Your task to perform on an android device: Search for usb-a on newegg.com, select the first entry, and add it to the cart. Image 0: 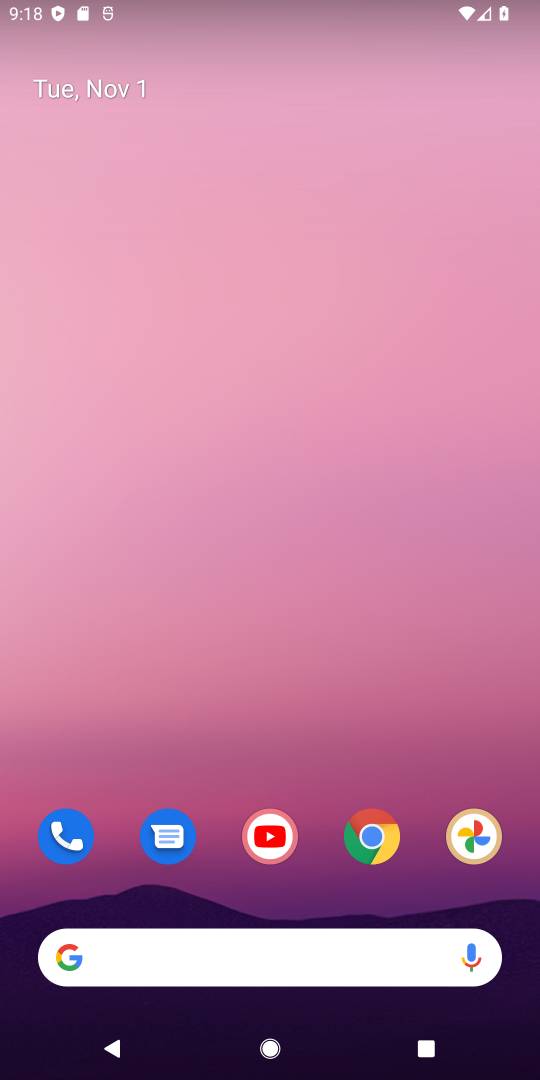
Step 0: click (381, 854)
Your task to perform on an android device: Search for usb-a on newegg.com, select the first entry, and add it to the cart. Image 1: 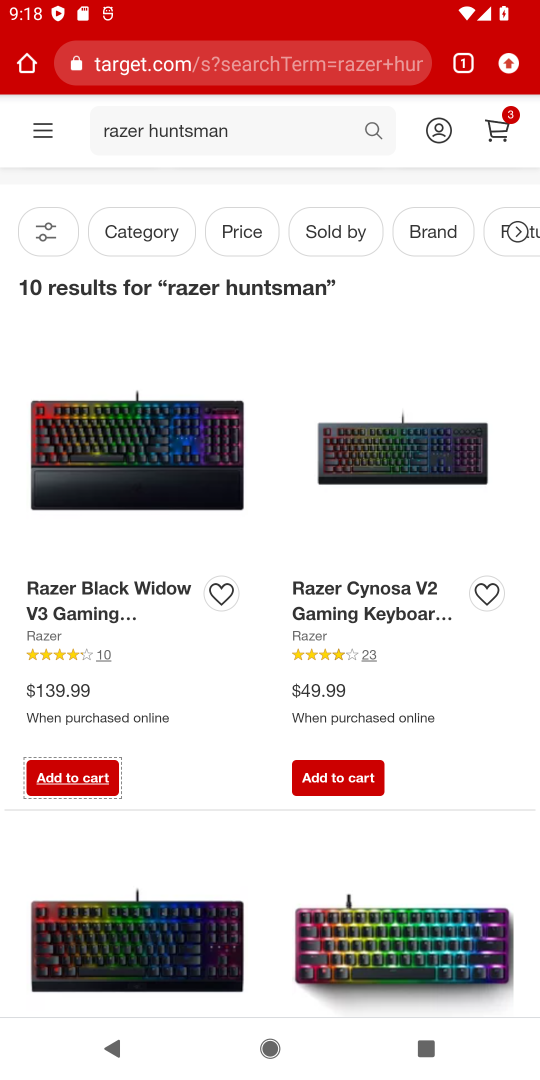
Step 1: click (231, 56)
Your task to perform on an android device: Search for usb-a on newegg.com, select the first entry, and add it to the cart. Image 2: 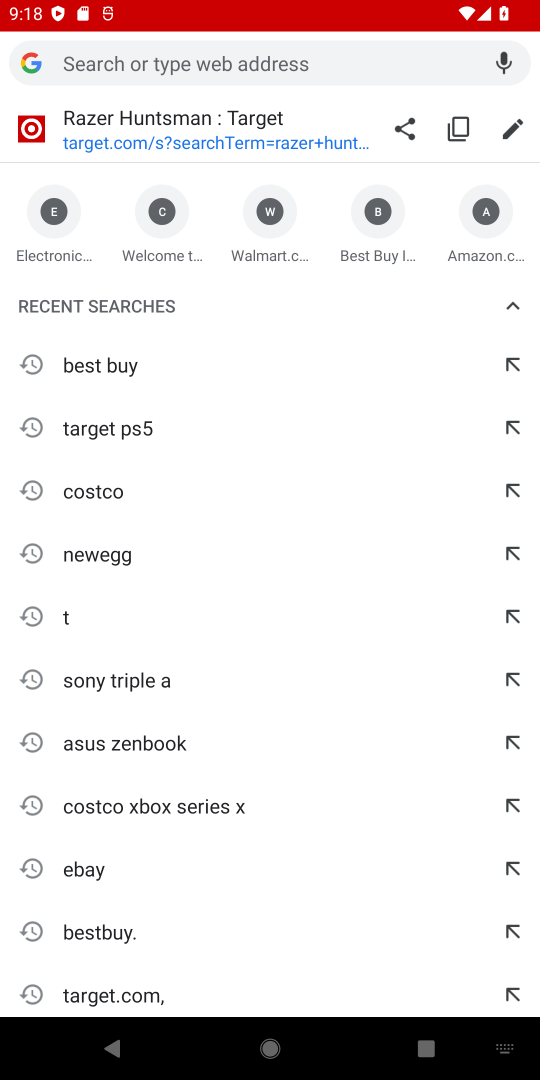
Step 2: click (144, 553)
Your task to perform on an android device: Search for usb-a on newegg.com, select the first entry, and add it to the cart. Image 3: 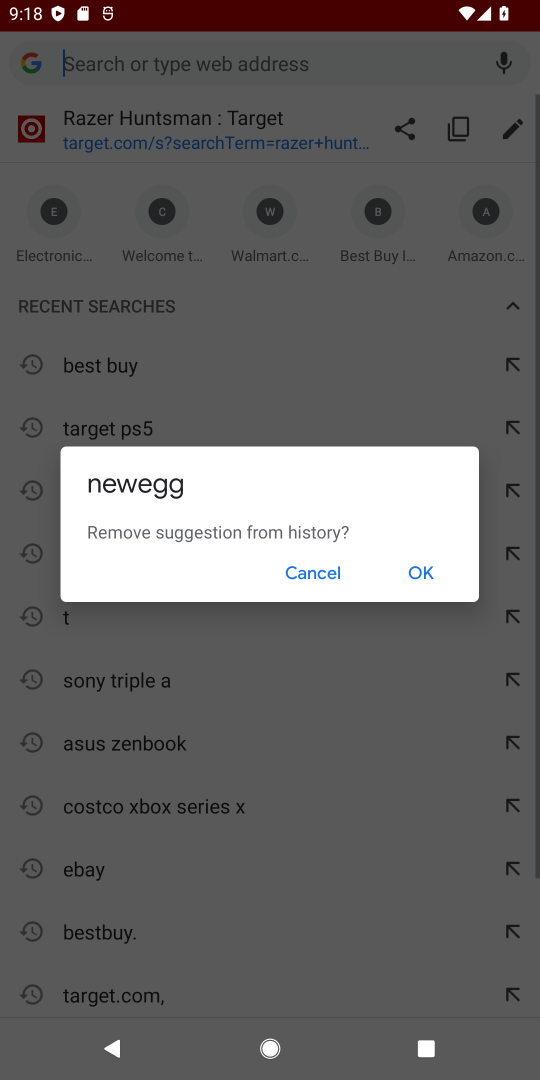
Step 3: click (450, 579)
Your task to perform on an android device: Search for usb-a on newegg.com, select the first entry, and add it to the cart. Image 4: 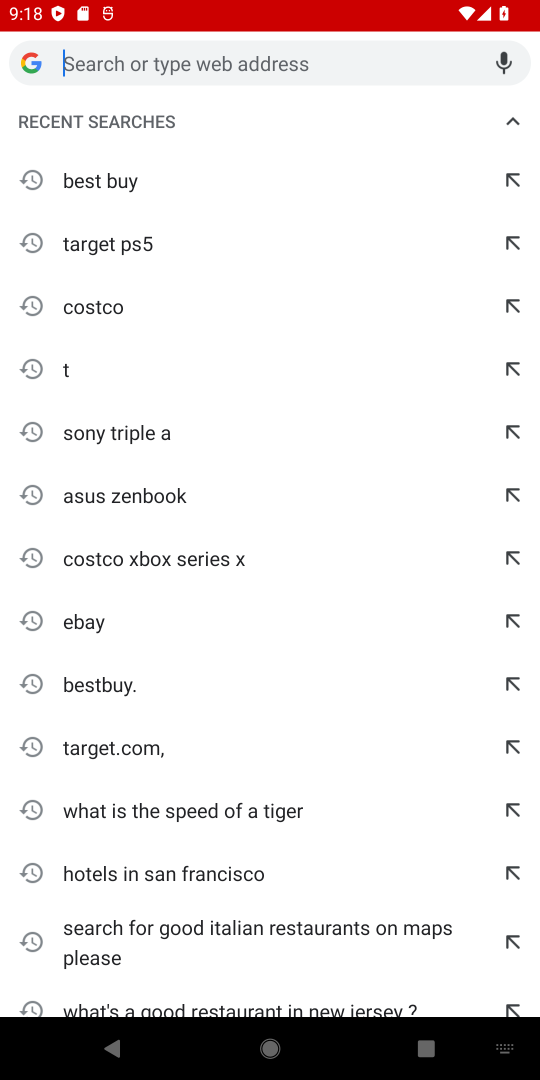
Step 4: type "newegg.com"
Your task to perform on an android device: Search for usb-a on newegg.com, select the first entry, and add it to the cart. Image 5: 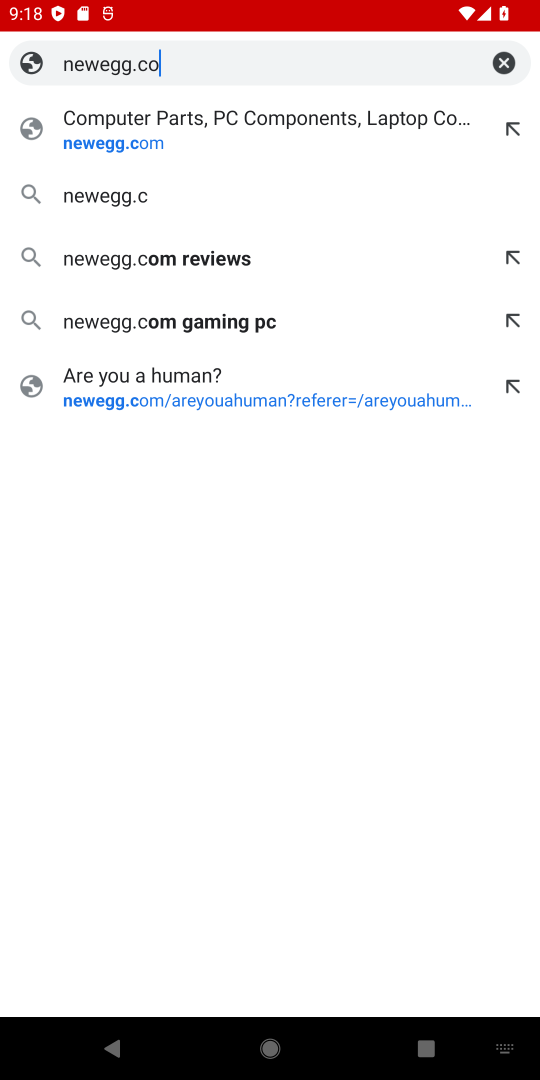
Step 5: type ""
Your task to perform on an android device: Search for usb-a on newegg.com, select the first entry, and add it to the cart. Image 6: 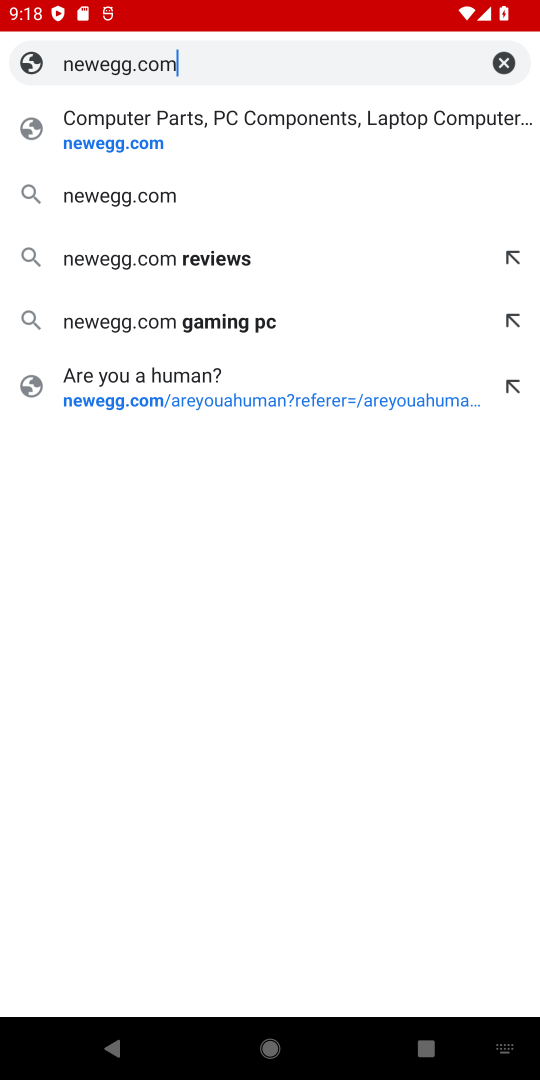
Step 6: click (117, 130)
Your task to perform on an android device: Search for usb-a on newegg.com, select the first entry, and add it to the cart. Image 7: 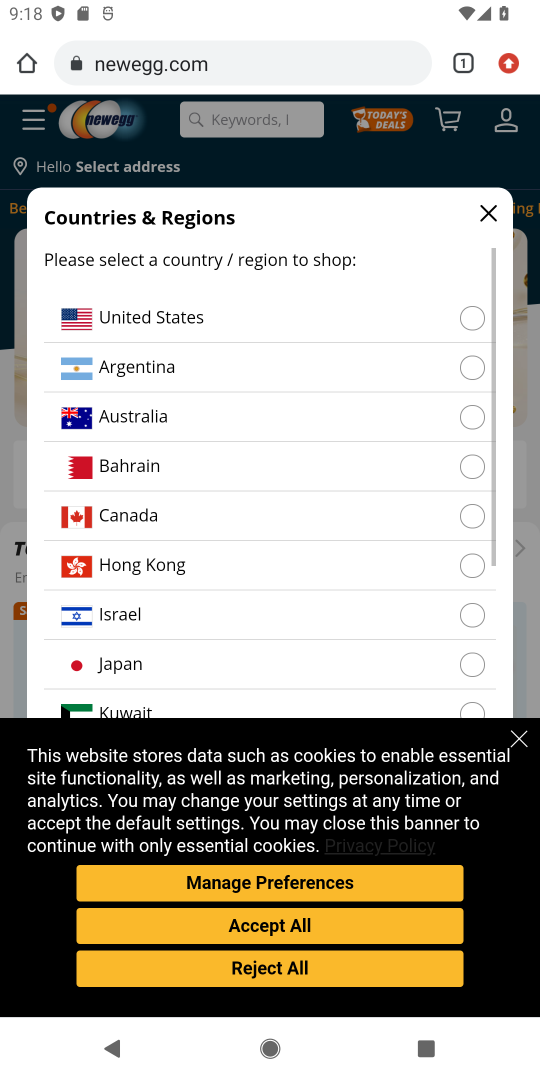
Step 7: click (476, 207)
Your task to perform on an android device: Search for usb-a on newegg.com, select the first entry, and add it to the cart. Image 8: 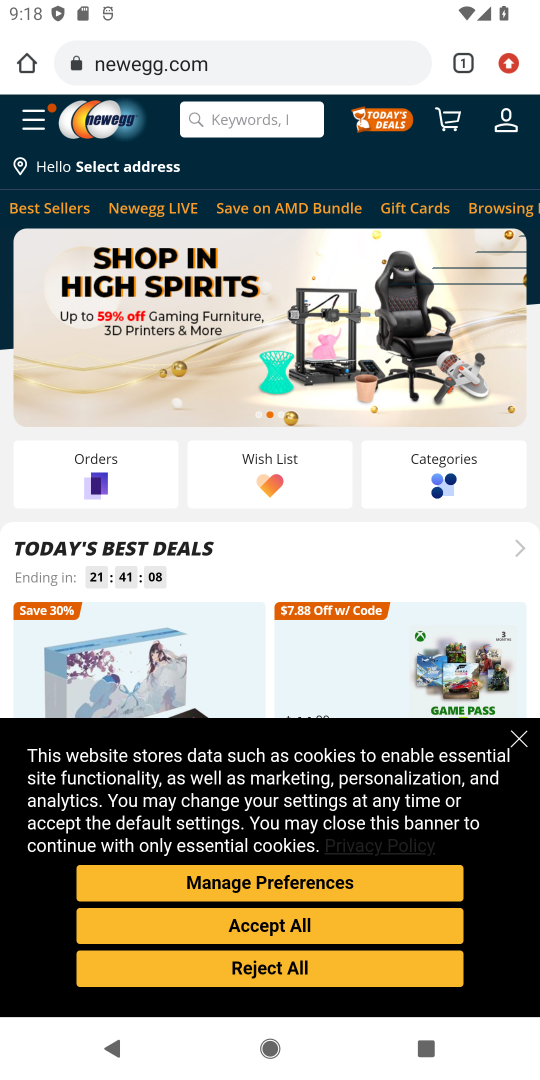
Step 8: click (334, 984)
Your task to perform on an android device: Search for usb-a on newegg.com, select the first entry, and add it to the cart. Image 9: 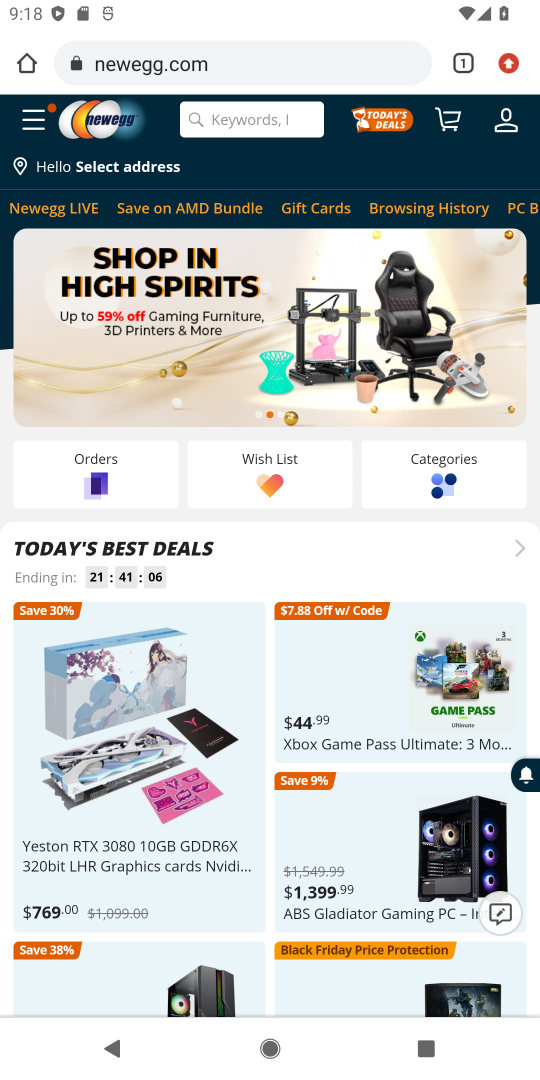
Step 9: click (249, 108)
Your task to perform on an android device: Search for usb-a on newegg.com, select the first entry, and add it to the cart. Image 10: 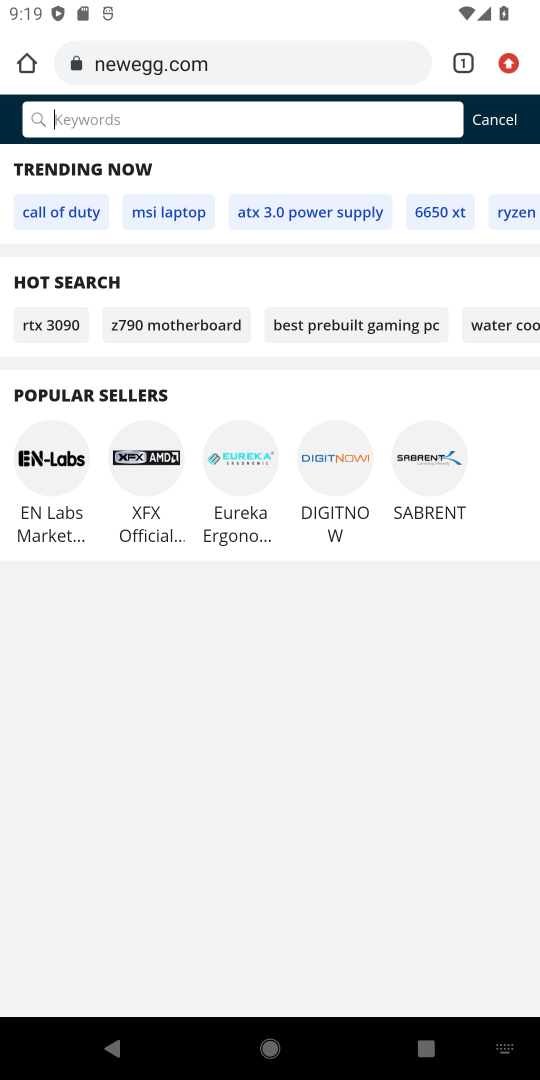
Step 10: type "usb-a"
Your task to perform on an android device: Search for usb-a on newegg.com, select the first entry, and add it to the cart. Image 11: 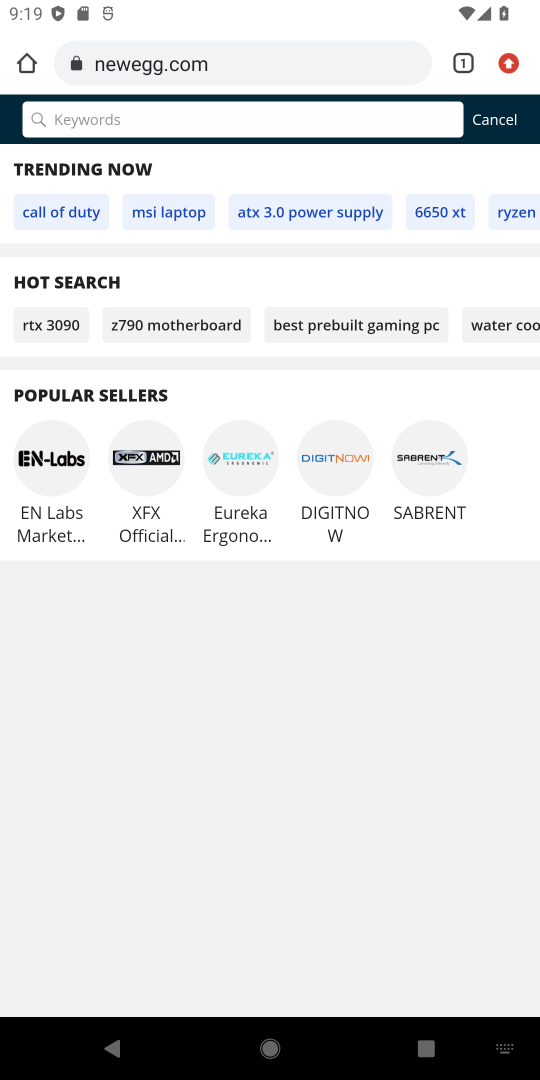
Step 11: type ""
Your task to perform on an android device: Search for usb-a on newegg.com, select the first entry, and add it to the cart. Image 12: 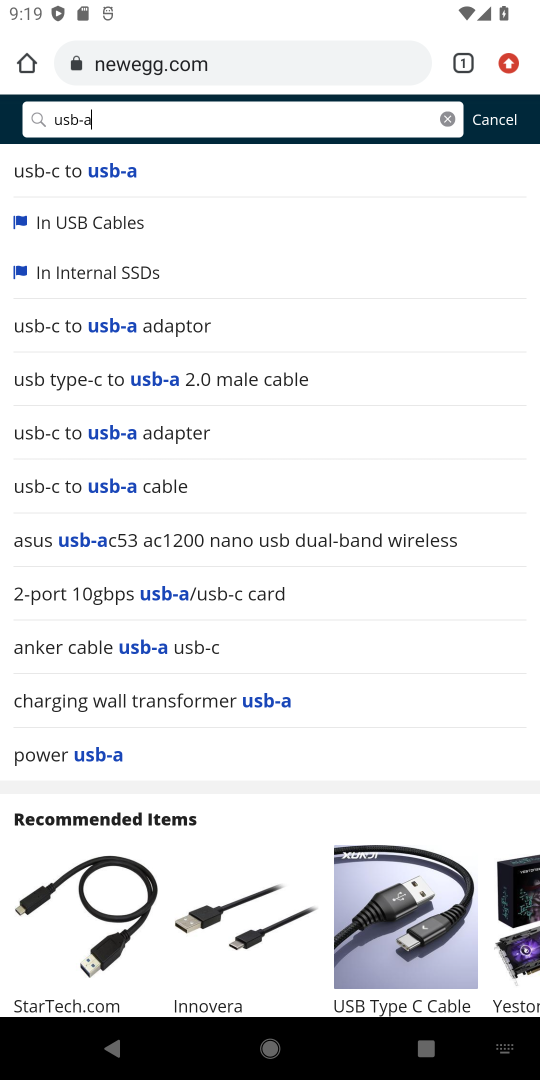
Step 12: click (56, 173)
Your task to perform on an android device: Search for usb-a on newegg.com, select the first entry, and add it to the cart. Image 13: 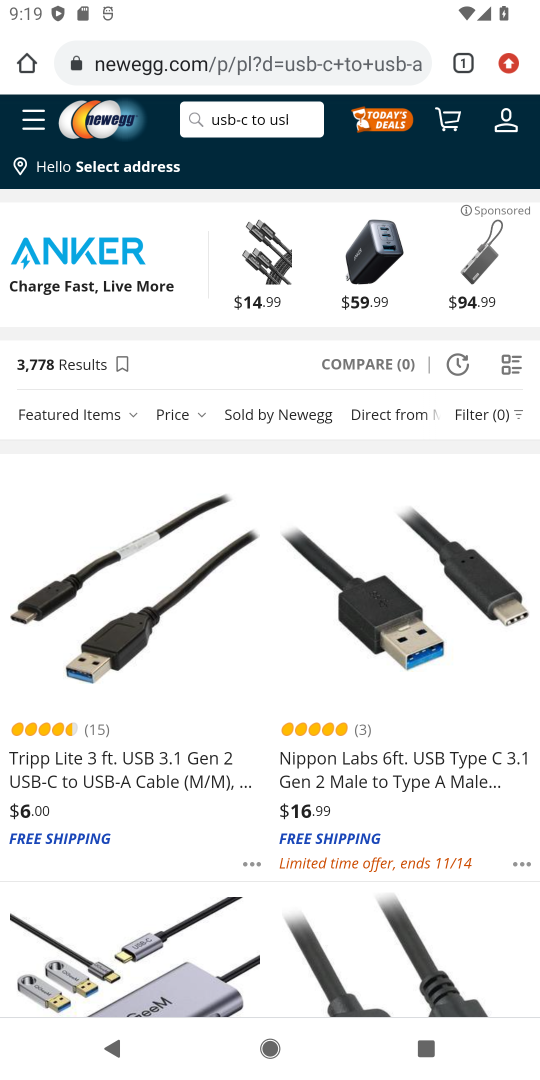
Step 13: click (141, 595)
Your task to perform on an android device: Search for usb-a on newegg.com, select the first entry, and add it to the cart. Image 14: 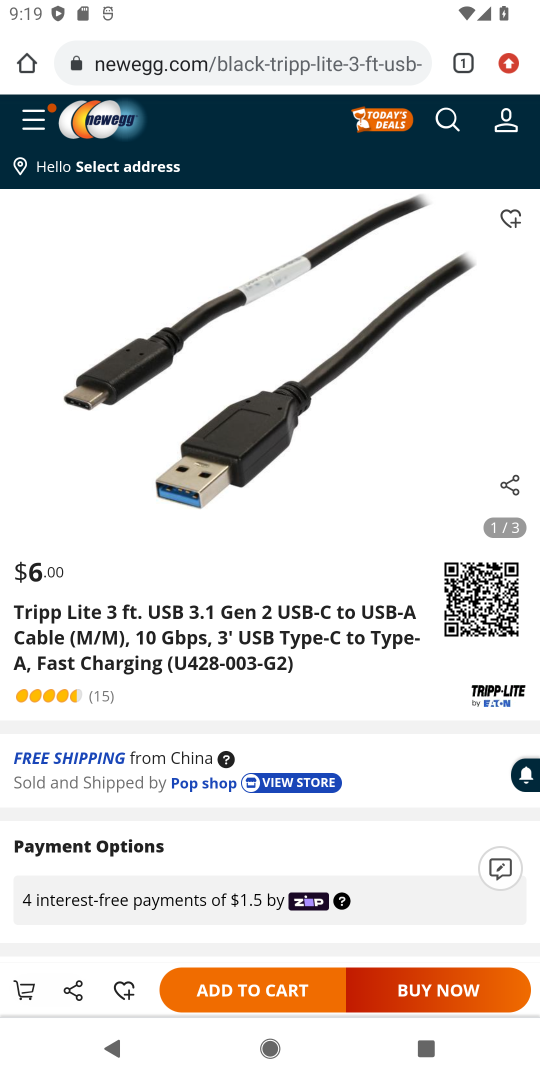
Step 14: click (211, 999)
Your task to perform on an android device: Search for usb-a on newegg.com, select the first entry, and add it to the cart. Image 15: 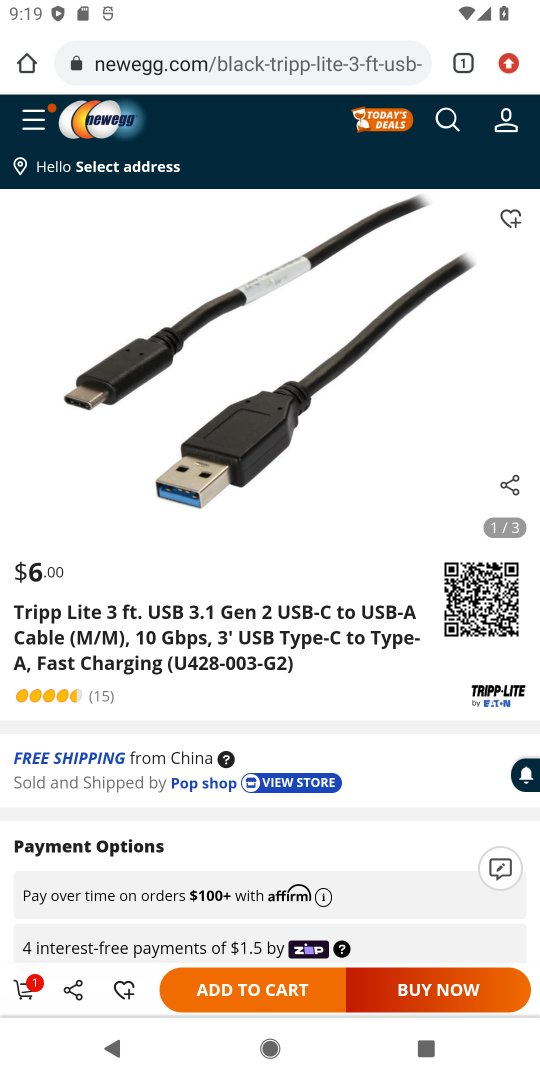
Step 15: click (38, 999)
Your task to perform on an android device: Search for usb-a on newegg.com, select the first entry, and add it to the cart. Image 16: 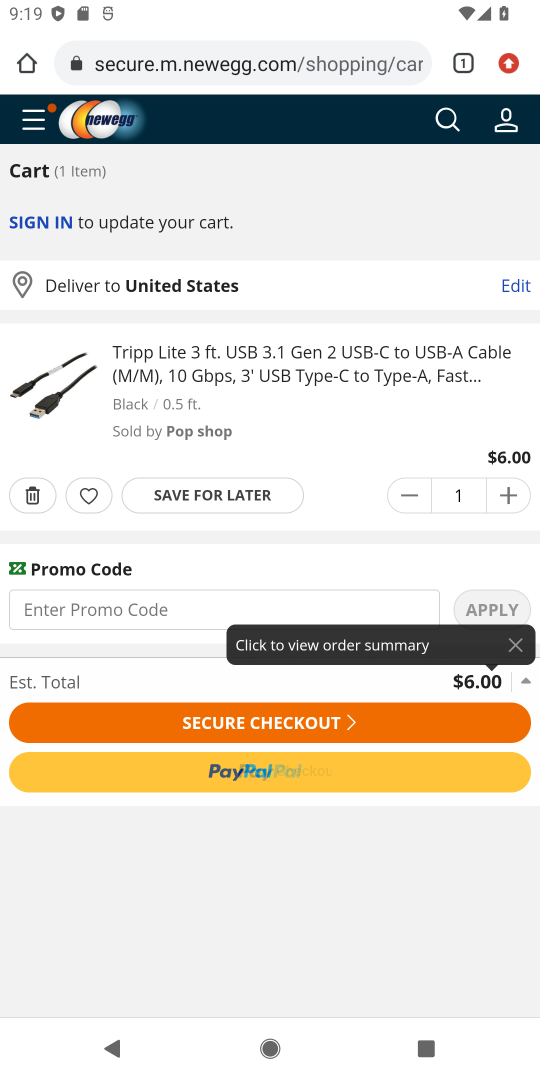
Step 16: click (201, 713)
Your task to perform on an android device: Search for usb-a on newegg.com, select the first entry, and add it to the cart. Image 17: 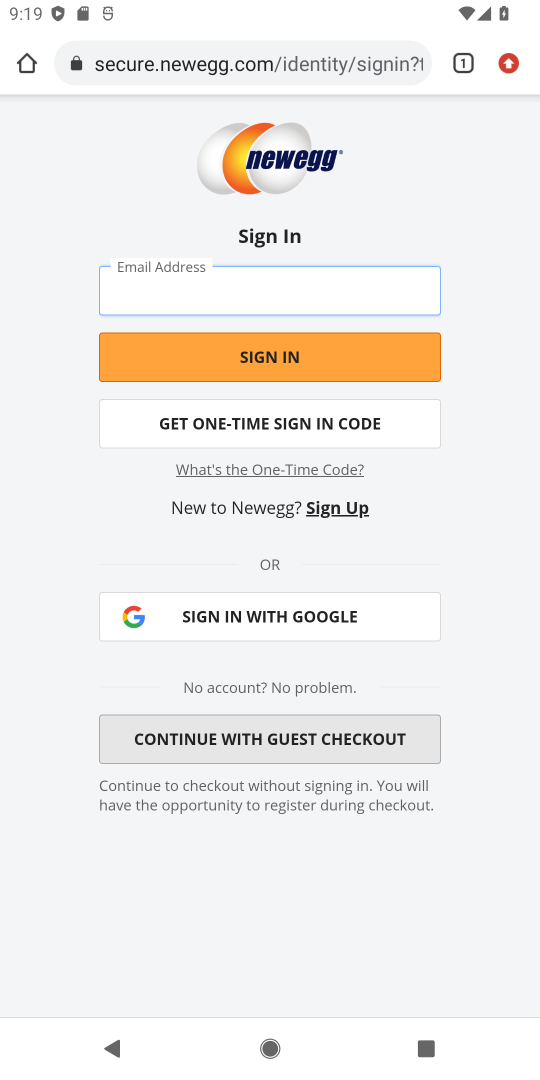
Step 17: click (408, 565)
Your task to perform on an android device: Search for usb-a on newegg.com, select the first entry, and add it to the cart. Image 18: 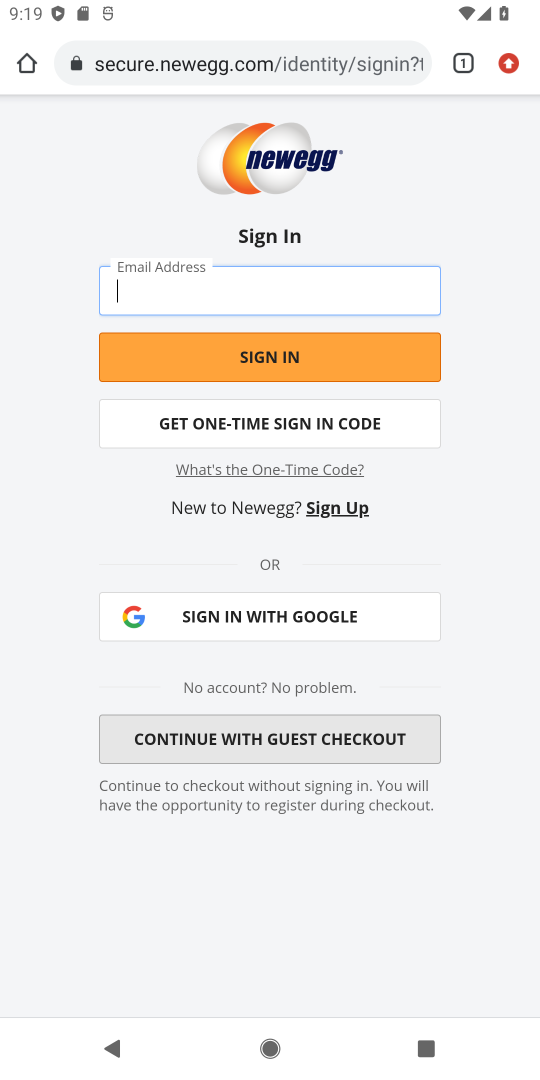
Step 18: task complete